Your task to perform on an android device: Open Google Chrome and open the bookmarks view Image 0: 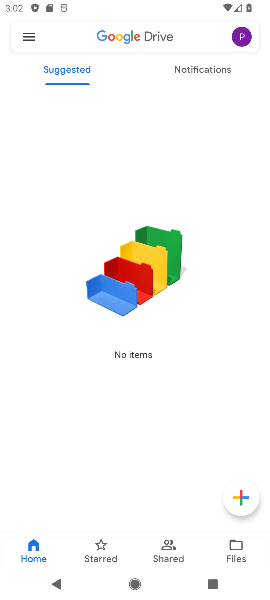
Step 0: press home button
Your task to perform on an android device: Open Google Chrome and open the bookmarks view Image 1: 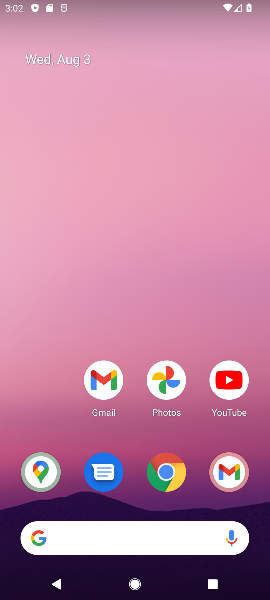
Step 1: drag from (222, 513) to (84, 34)
Your task to perform on an android device: Open Google Chrome and open the bookmarks view Image 2: 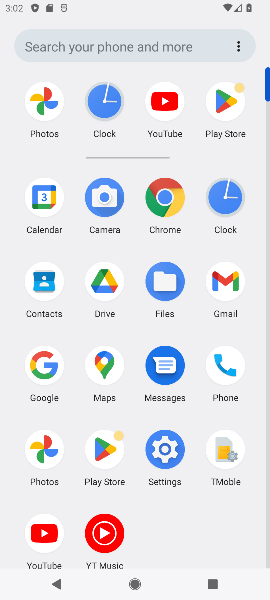
Step 2: click (151, 193)
Your task to perform on an android device: Open Google Chrome and open the bookmarks view Image 3: 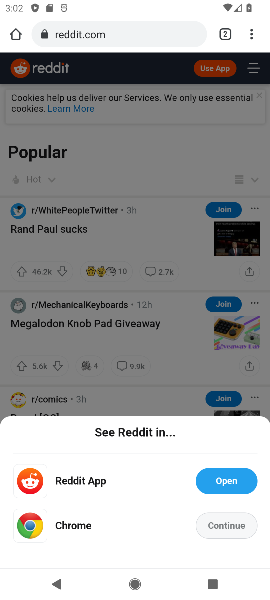
Step 3: press back button
Your task to perform on an android device: Open Google Chrome and open the bookmarks view Image 4: 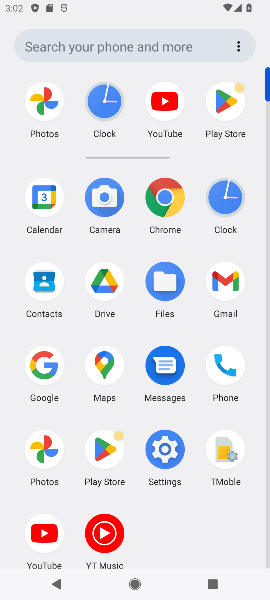
Step 4: click (169, 196)
Your task to perform on an android device: Open Google Chrome and open the bookmarks view Image 5: 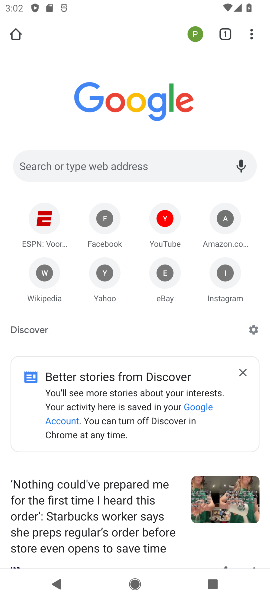
Step 5: click (252, 27)
Your task to perform on an android device: Open Google Chrome and open the bookmarks view Image 6: 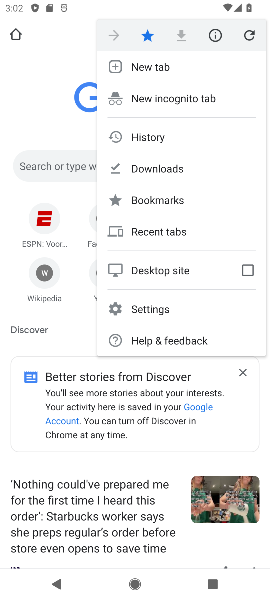
Step 6: click (156, 198)
Your task to perform on an android device: Open Google Chrome and open the bookmarks view Image 7: 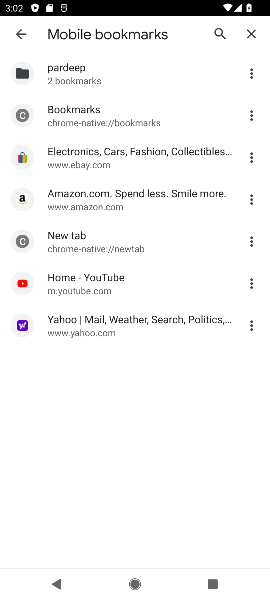
Step 7: task complete